Your task to perform on an android device: empty trash in google photos Image 0: 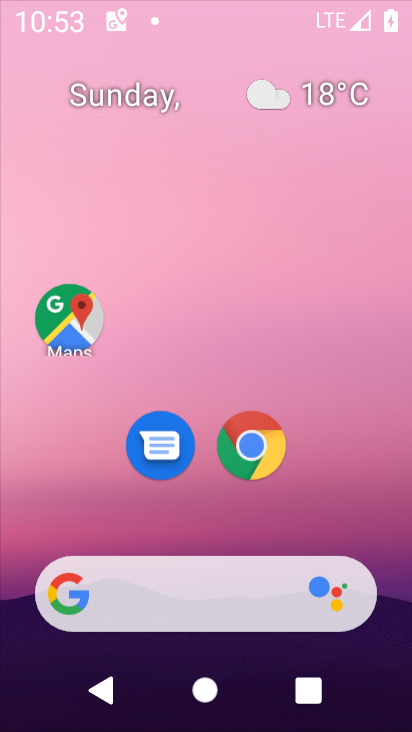
Step 0: press home button
Your task to perform on an android device: empty trash in google photos Image 1: 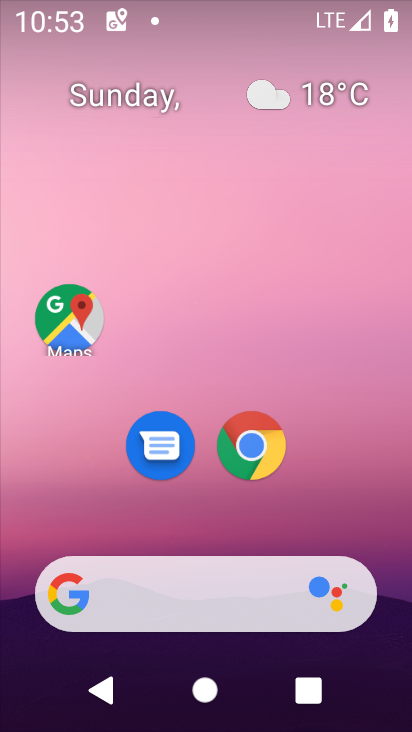
Step 1: drag from (216, 536) to (249, 57)
Your task to perform on an android device: empty trash in google photos Image 2: 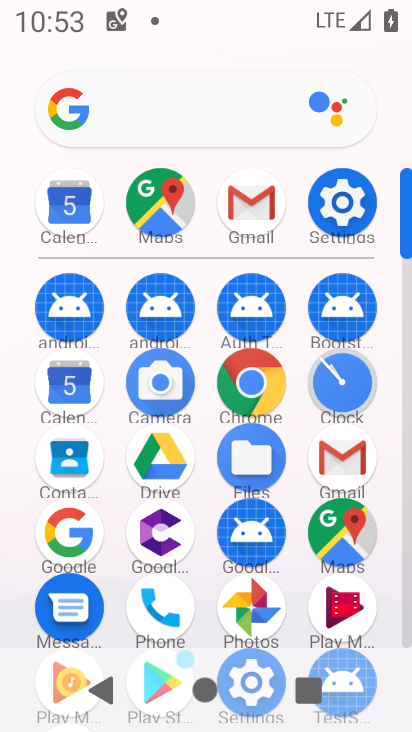
Step 2: click (251, 596)
Your task to perform on an android device: empty trash in google photos Image 3: 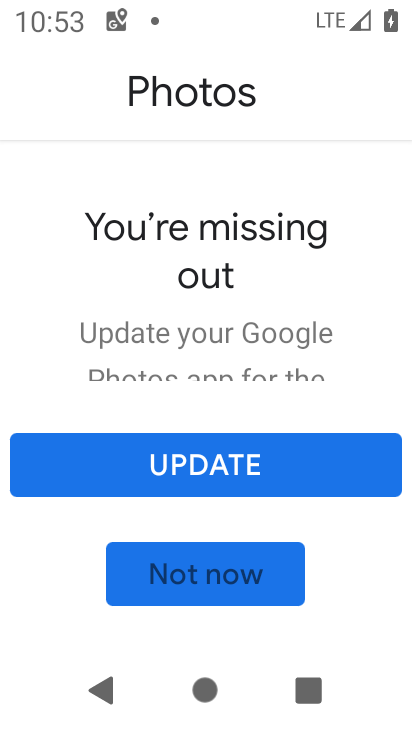
Step 3: click (206, 460)
Your task to perform on an android device: empty trash in google photos Image 4: 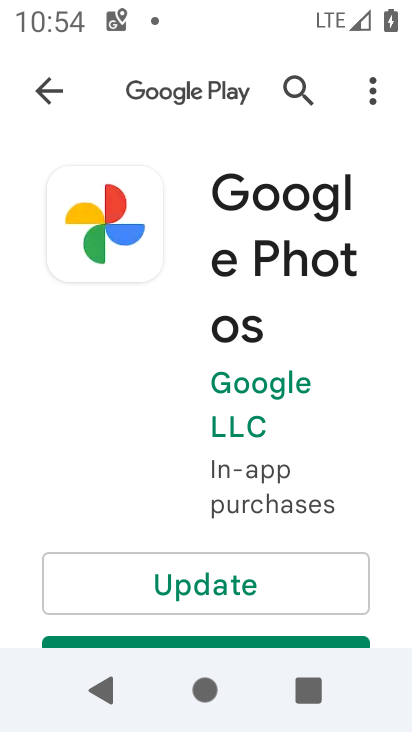
Step 4: drag from (135, 501) to (222, 152)
Your task to perform on an android device: empty trash in google photos Image 5: 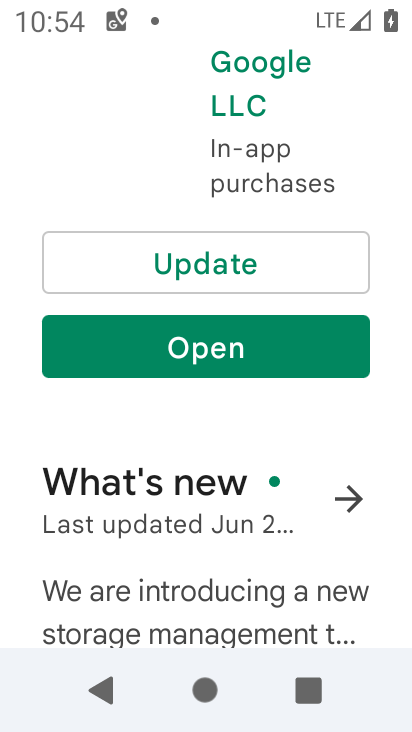
Step 5: click (212, 346)
Your task to perform on an android device: empty trash in google photos Image 6: 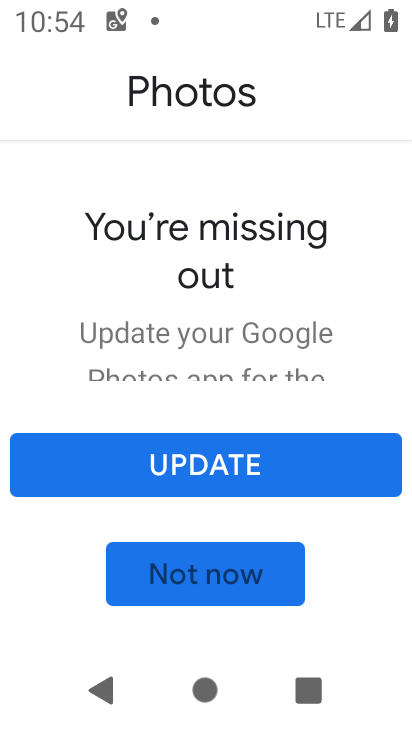
Step 6: click (219, 463)
Your task to perform on an android device: empty trash in google photos Image 7: 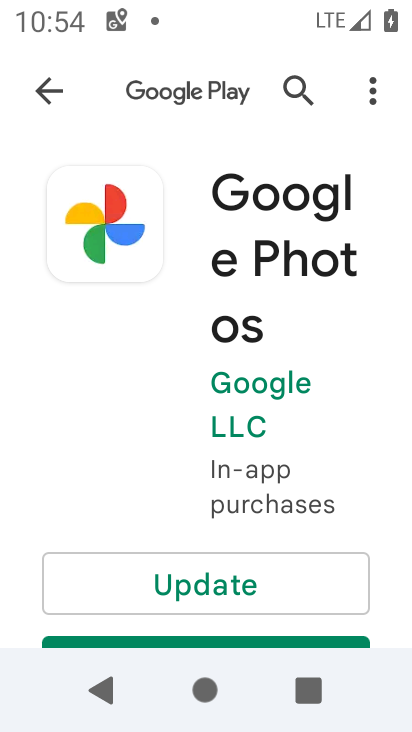
Step 7: click (219, 586)
Your task to perform on an android device: empty trash in google photos Image 8: 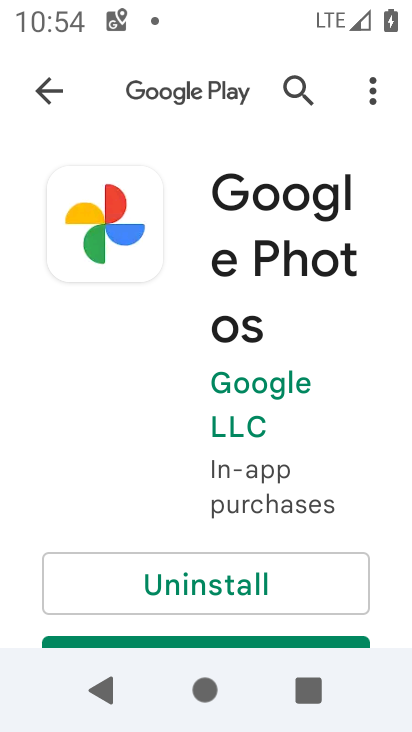
Step 8: drag from (170, 508) to (189, 224)
Your task to perform on an android device: empty trash in google photos Image 9: 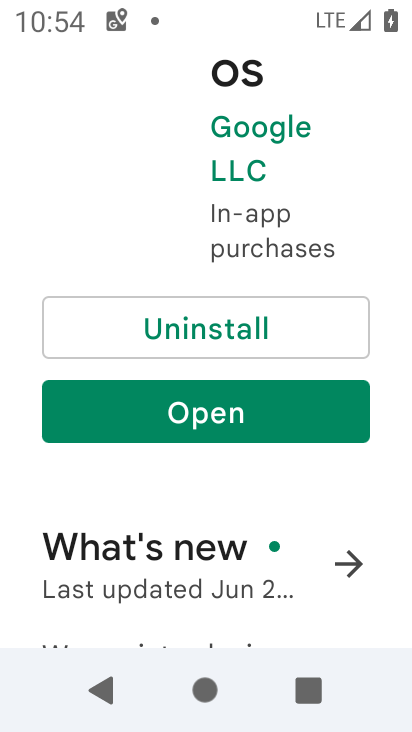
Step 9: click (209, 410)
Your task to perform on an android device: empty trash in google photos Image 10: 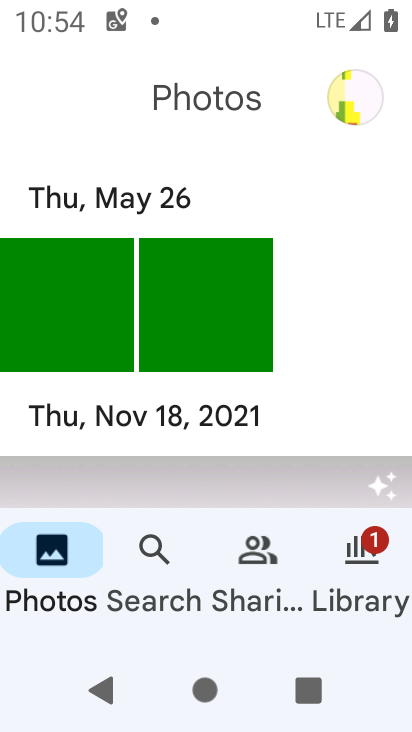
Step 10: click (372, 551)
Your task to perform on an android device: empty trash in google photos Image 11: 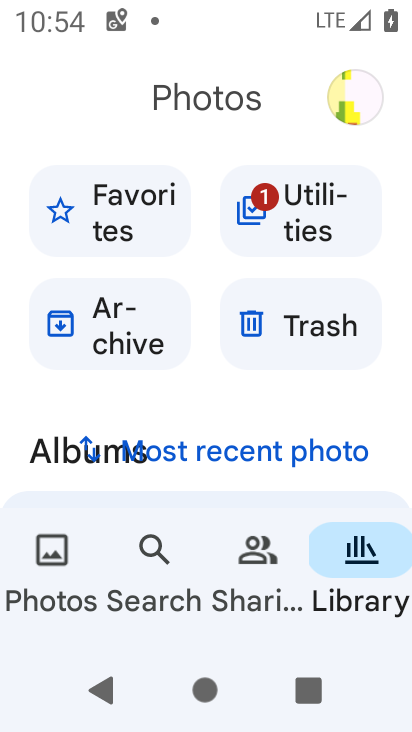
Step 11: click (280, 328)
Your task to perform on an android device: empty trash in google photos Image 12: 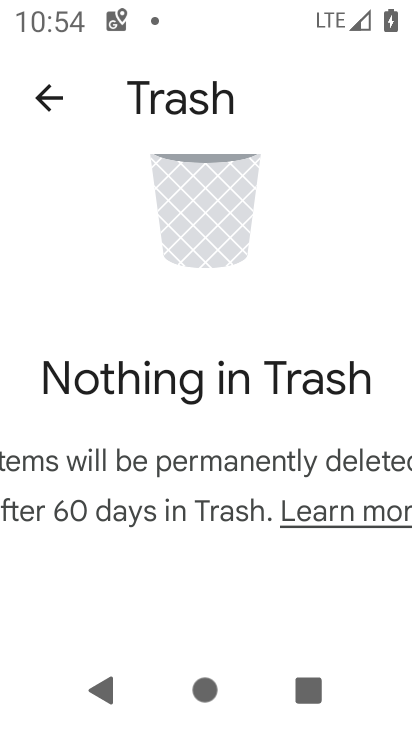
Step 12: task complete